Your task to perform on an android device: clear history in the chrome app Image 0: 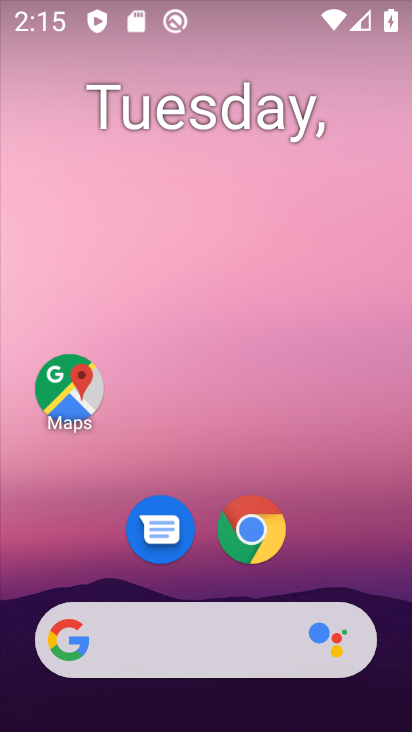
Step 0: click (252, 530)
Your task to perform on an android device: clear history in the chrome app Image 1: 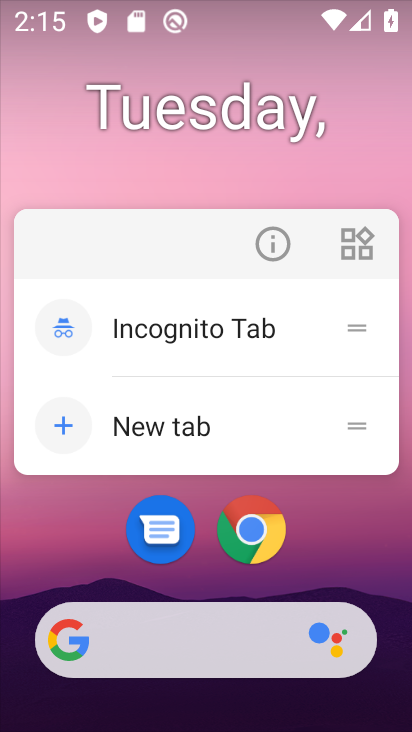
Step 1: click (252, 530)
Your task to perform on an android device: clear history in the chrome app Image 2: 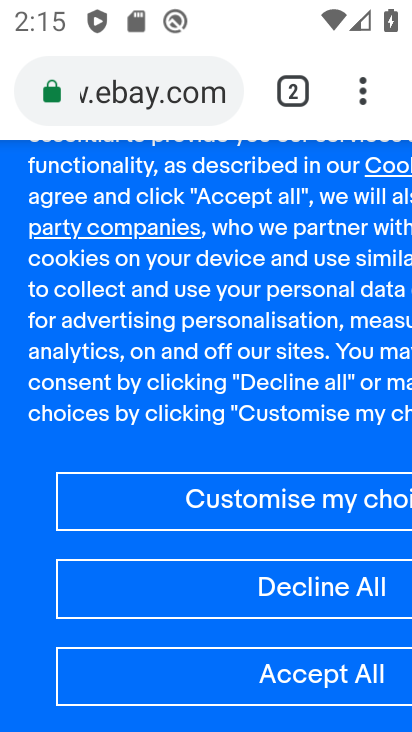
Step 2: click (368, 83)
Your task to perform on an android device: clear history in the chrome app Image 3: 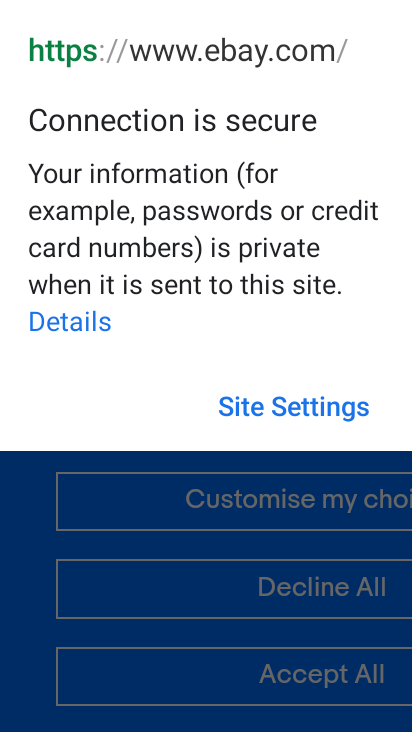
Step 3: click (294, 549)
Your task to perform on an android device: clear history in the chrome app Image 4: 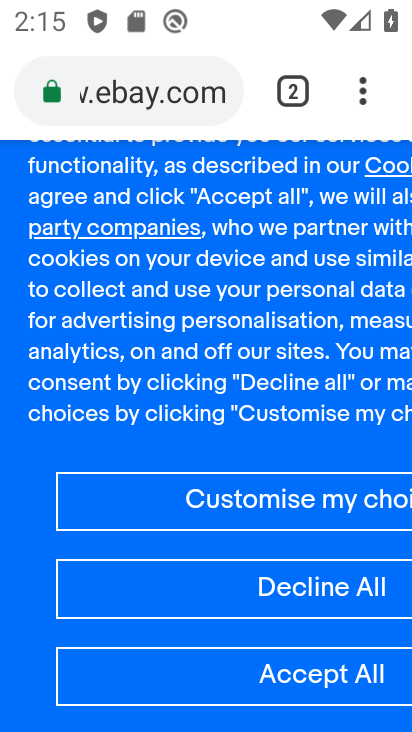
Step 4: click (368, 98)
Your task to perform on an android device: clear history in the chrome app Image 5: 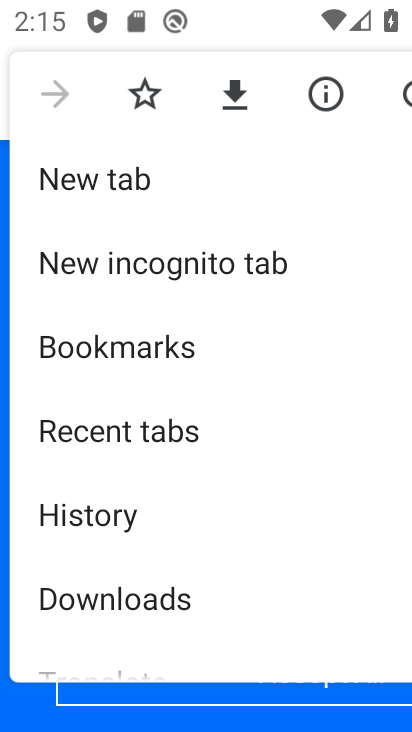
Step 5: click (121, 526)
Your task to perform on an android device: clear history in the chrome app Image 6: 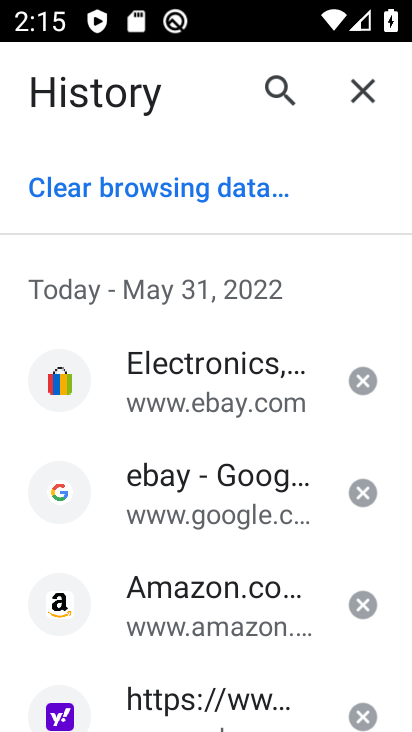
Step 6: click (160, 192)
Your task to perform on an android device: clear history in the chrome app Image 7: 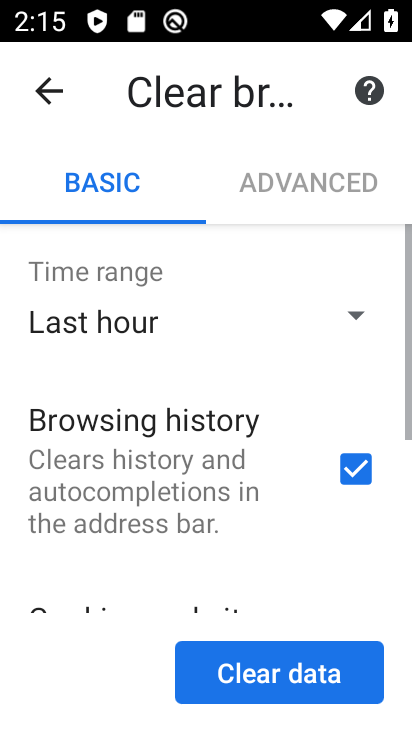
Step 7: drag from (246, 570) to (231, 85)
Your task to perform on an android device: clear history in the chrome app Image 8: 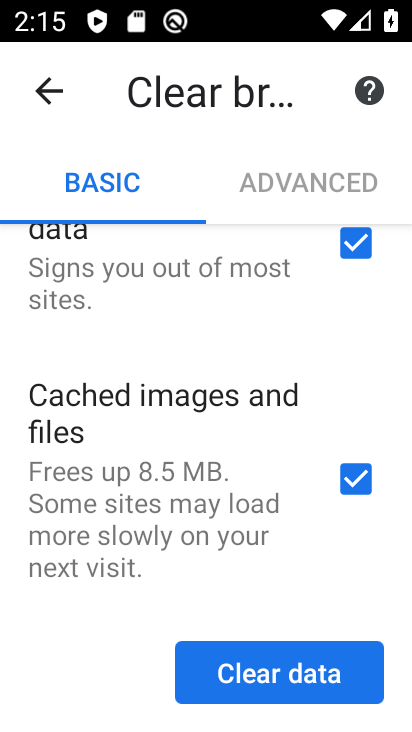
Step 8: click (225, 682)
Your task to perform on an android device: clear history in the chrome app Image 9: 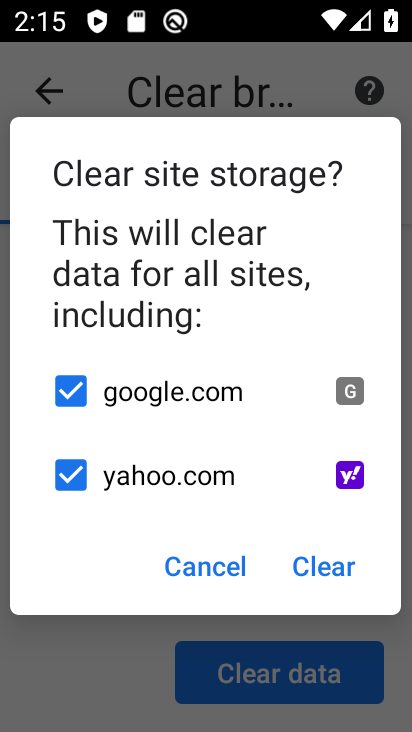
Step 9: click (327, 562)
Your task to perform on an android device: clear history in the chrome app Image 10: 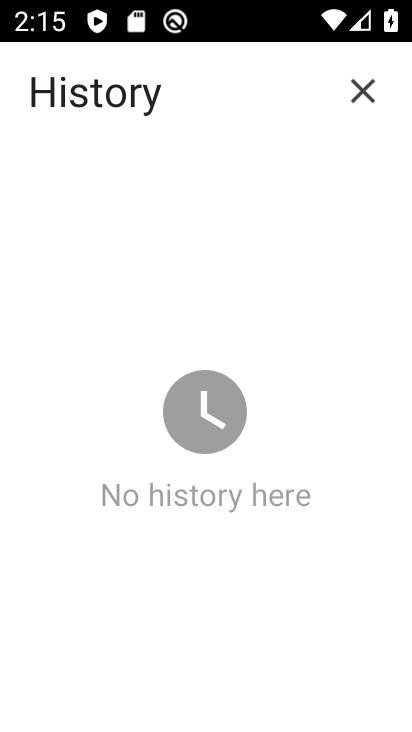
Step 10: task complete